Your task to perform on an android device: visit the assistant section in the google photos Image 0: 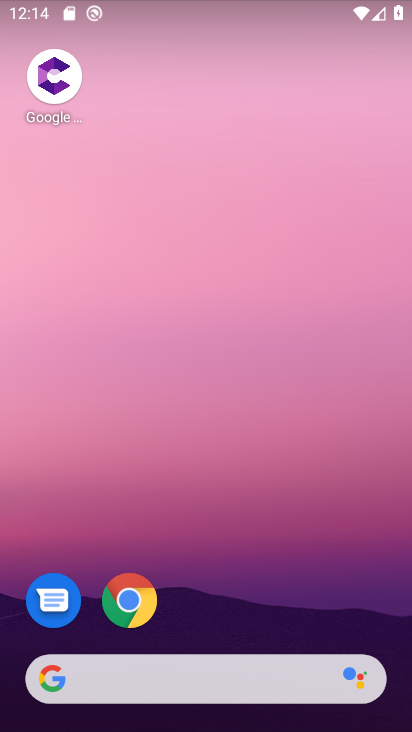
Step 0: drag from (172, 653) to (265, 163)
Your task to perform on an android device: visit the assistant section in the google photos Image 1: 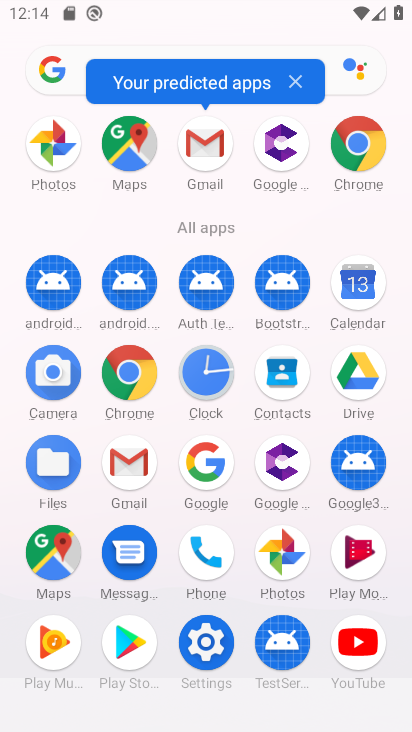
Step 1: drag from (197, 647) to (229, 498)
Your task to perform on an android device: visit the assistant section in the google photos Image 2: 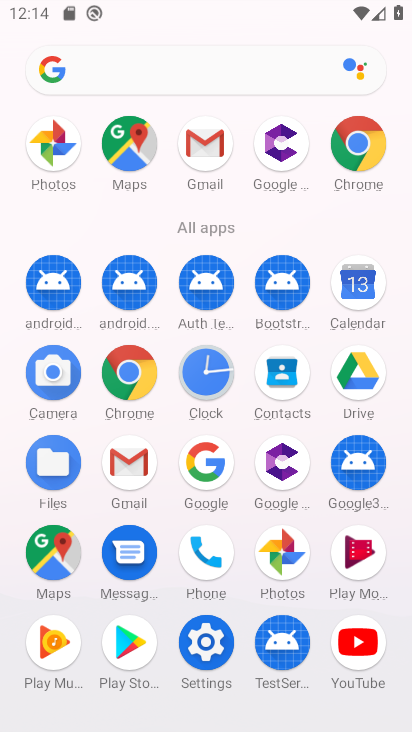
Step 2: click (294, 543)
Your task to perform on an android device: visit the assistant section in the google photos Image 3: 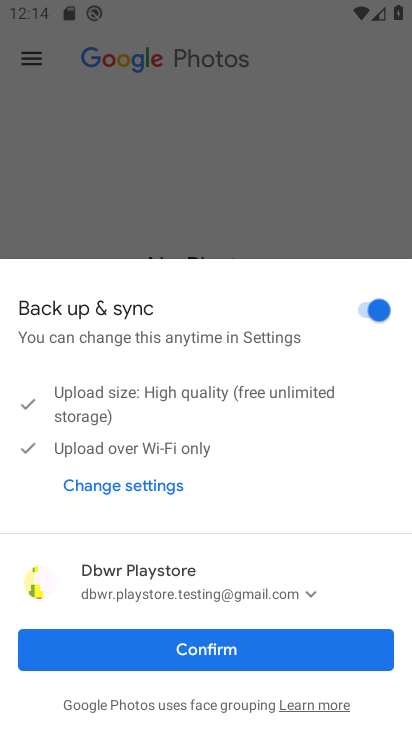
Step 3: click (217, 658)
Your task to perform on an android device: visit the assistant section in the google photos Image 4: 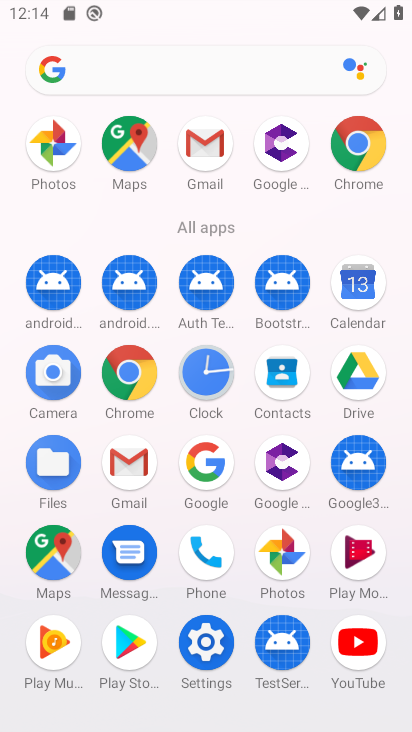
Step 4: click (280, 557)
Your task to perform on an android device: visit the assistant section in the google photos Image 5: 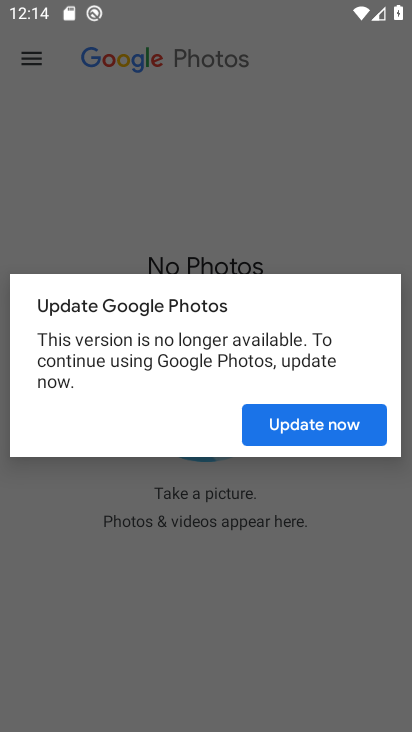
Step 5: click (295, 423)
Your task to perform on an android device: visit the assistant section in the google photos Image 6: 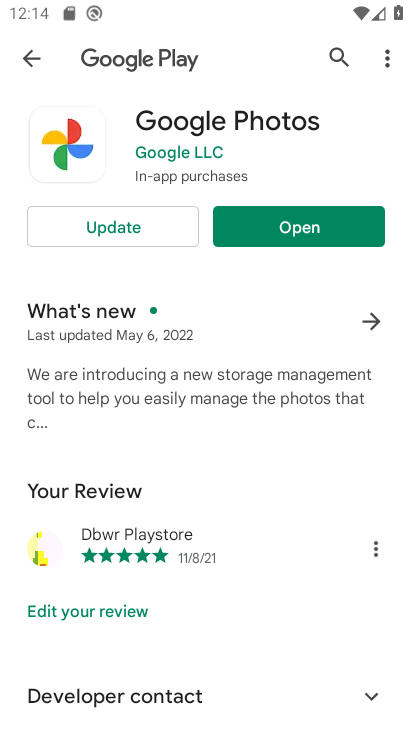
Step 6: click (185, 233)
Your task to perform on an android device: visit the assistant section in the google photos Image 7: 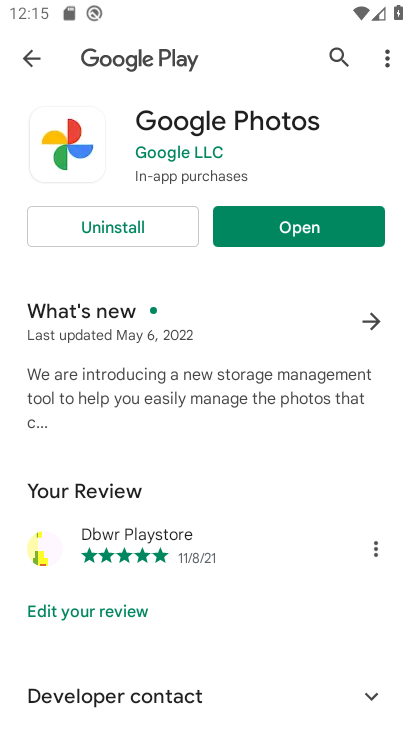
Step 7: click (308, 238)
Your task to perform on an android device: visit the assistant section in the google photos Image 8: 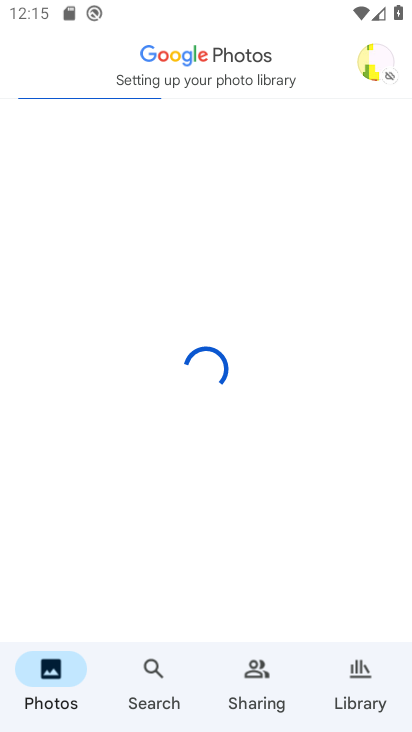
Step 8: task complete